Your task to perform on an android device: check the backup settings in the google photos Image 0: 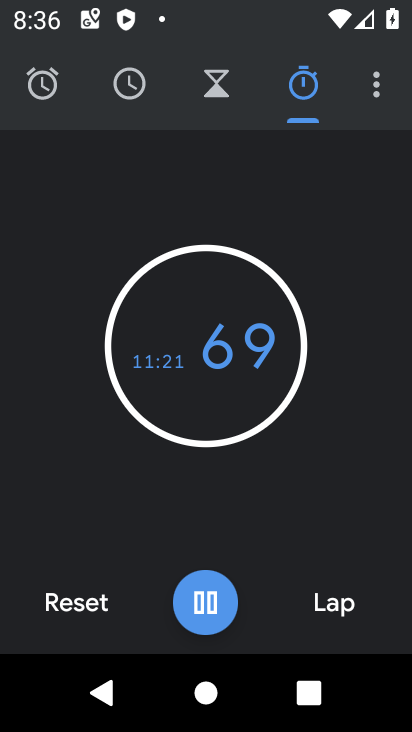
Step 0: click (75, 605)
Your task to perform on an android device: check the backup settings in the google photos Image 1: 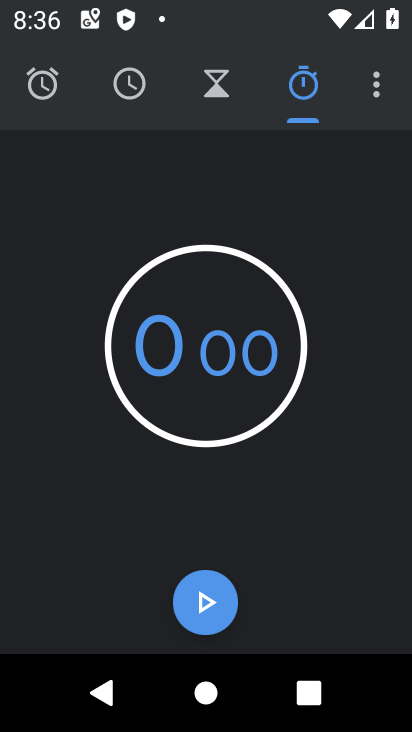
Step 1: press home button
Your task to perform on an android device: check the backup settings in the google photos Image 2: 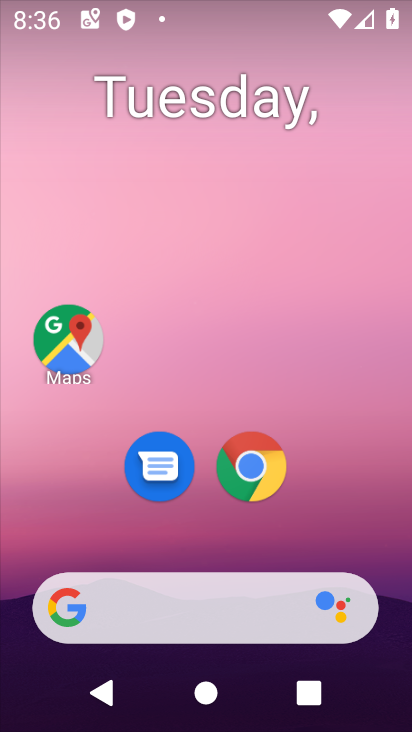
Step 2: drag from (229, 533) to (260, 37)
Your task to perform on an android device: check the backup settings in the google photos Image 3: 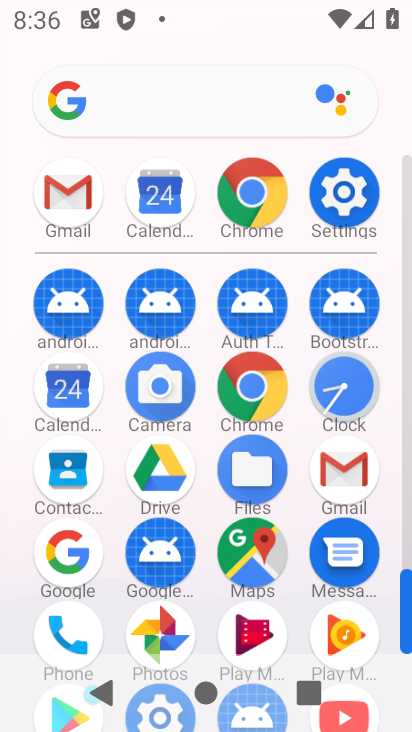
Step 3: drag from (202, 507) to (226, 329)
Your task to perform on an android device: check the backup settings in the google photos Image 4: 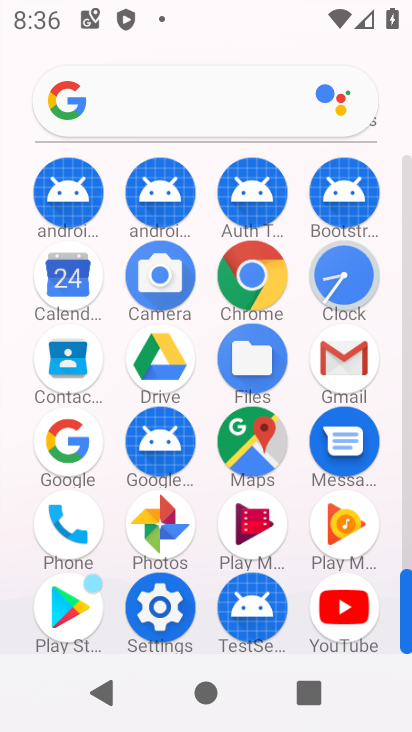
Step 4: click (162, 526)
Your task to perform on an android device: check the backup settings in the google photos Image 5: 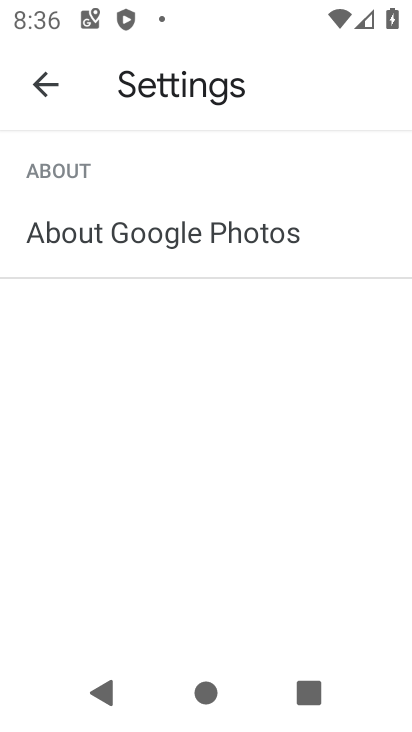
Step 5: click (34, 83)
Your task to perform on an android device: check the backup settings in the google photos Image 6: 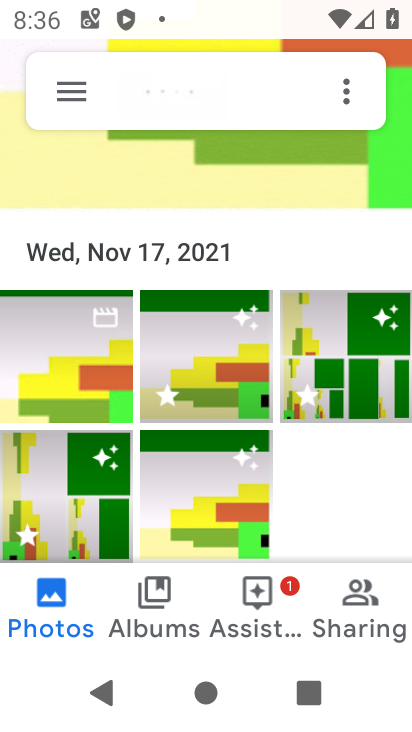
Step 6: click (66, 92)
Your task to perform on an android device: check the backup settings in the google photos Image 7: 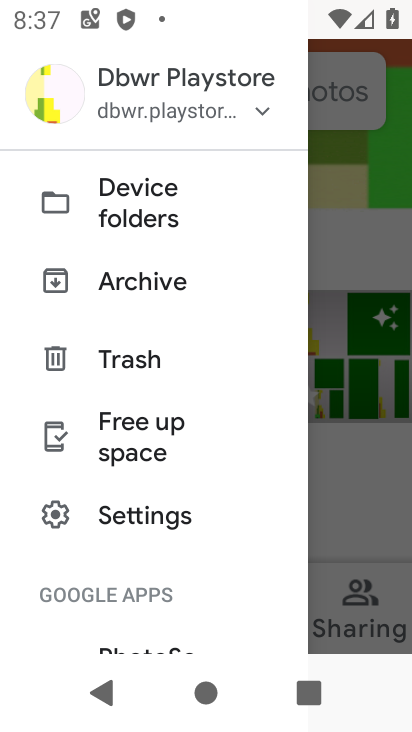
Step 7: click (172, 526)
Your task to perform on an android device: check the backup settings in the google photos Image 8: 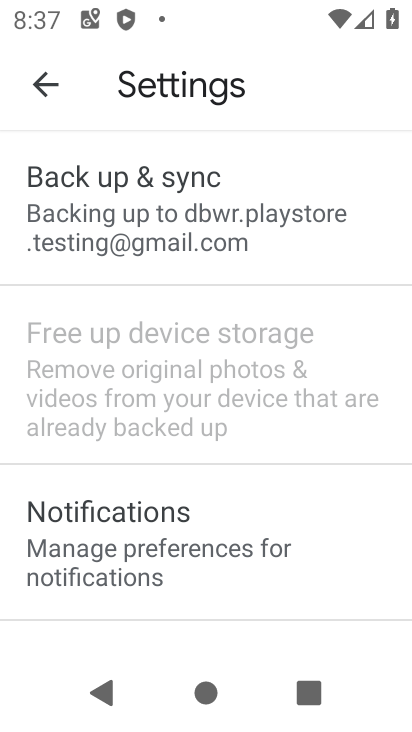
Step 8: click (177, 198)
Your task to perform on an android device: check the backup settings in the google photos Image 9: 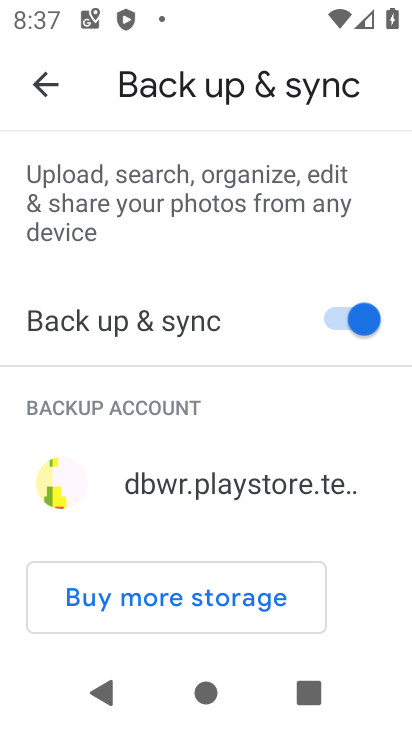
Step 9: task complete